Your task to perform on an android device: check android version Image 0: 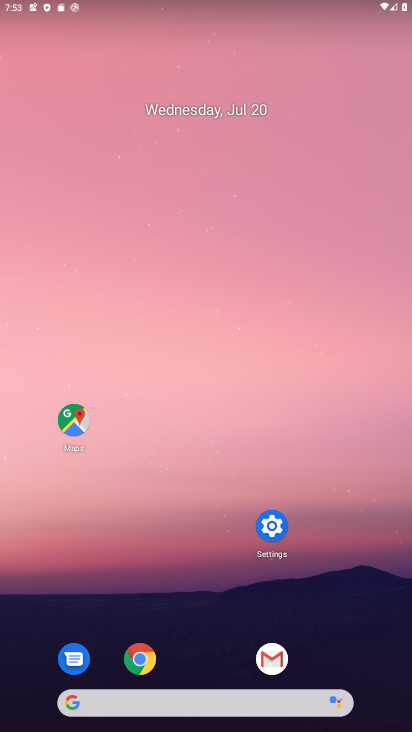
Step 0: click (265, 522)
Your task to perform on an android device: check android version Image 1: 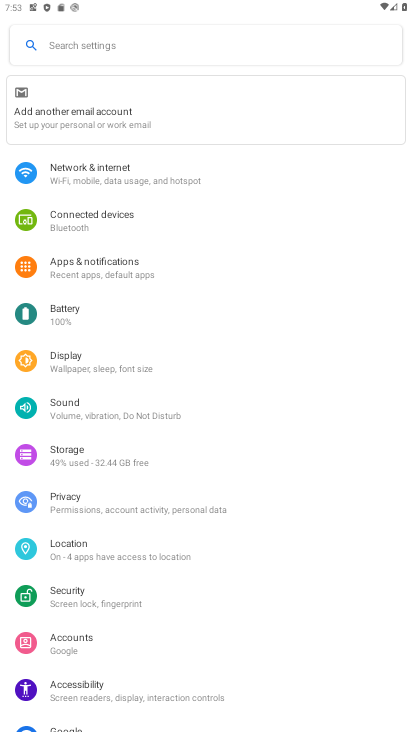
Step 1: click (106, 41)
Your task to perform on an android device: check android version Image 2: 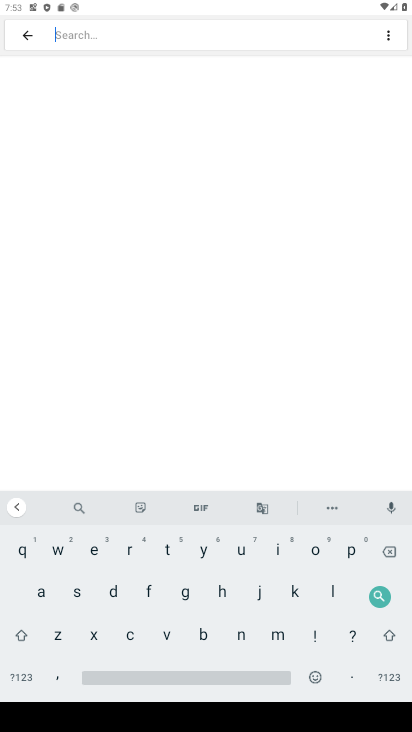
Step 2: click (34, 586)
Your task to perform on an android device: check android version Image 3: 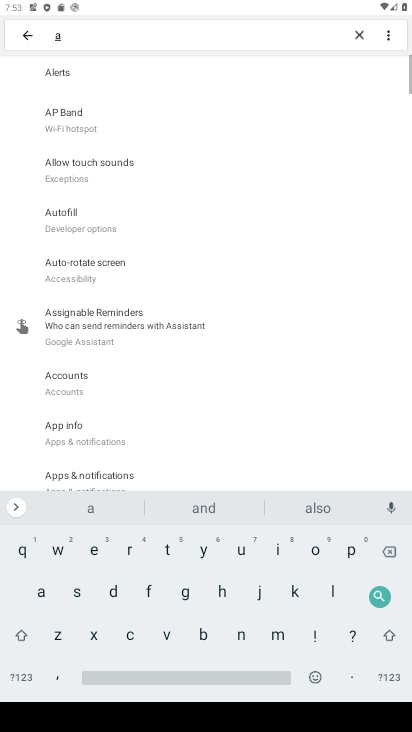
Step 3: click (239, 633)
Your task to perform on an android device: check android version Image 4: 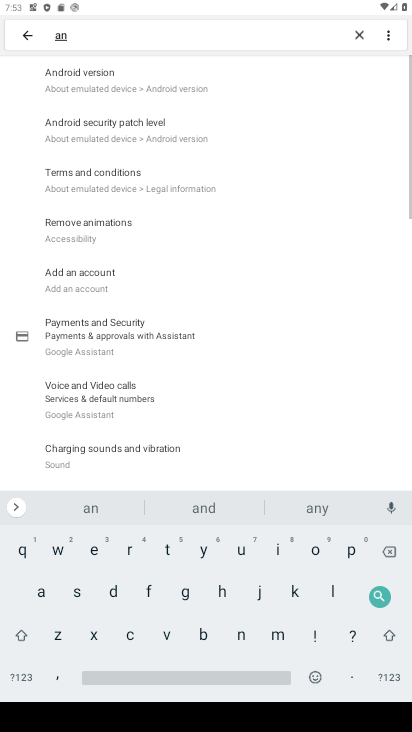
Step 4: click (107, 68)
Your task to perform on an android device: check android version Image 5: 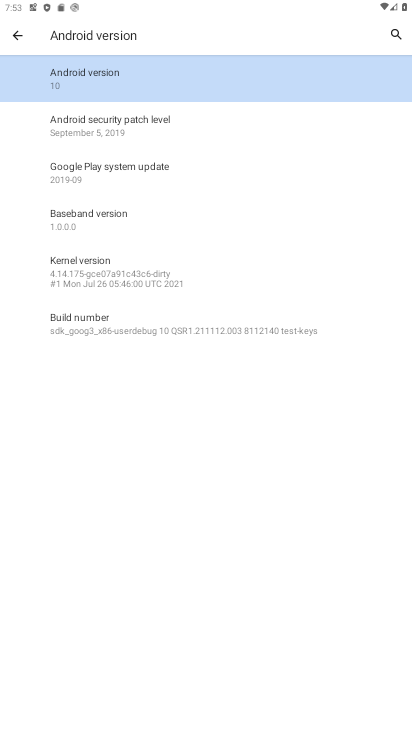
Step 5: click (106, 68)
Your task to perform on an android device: check android version Image 6: 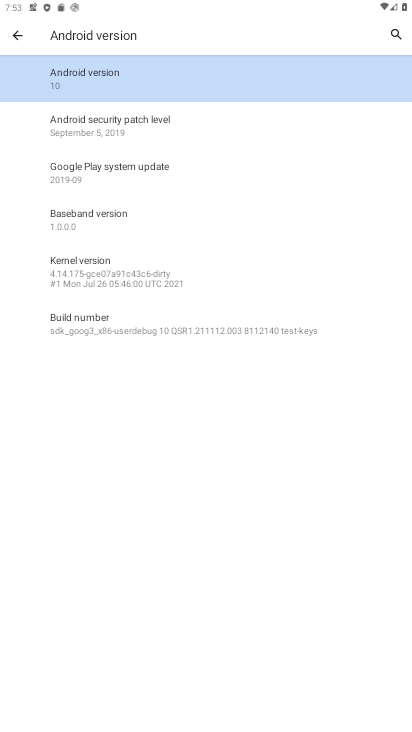
Step 6: task complete